Your task to perform on an android device: check data usage Image 0: 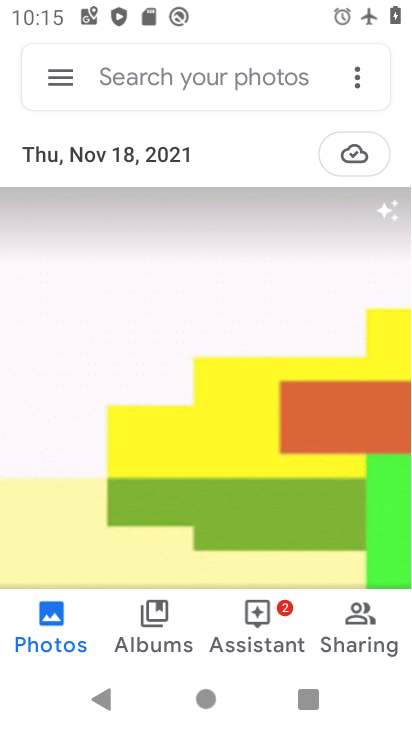
Step 0: press home button
Your task to perform on an android device: check data usage Image 1: 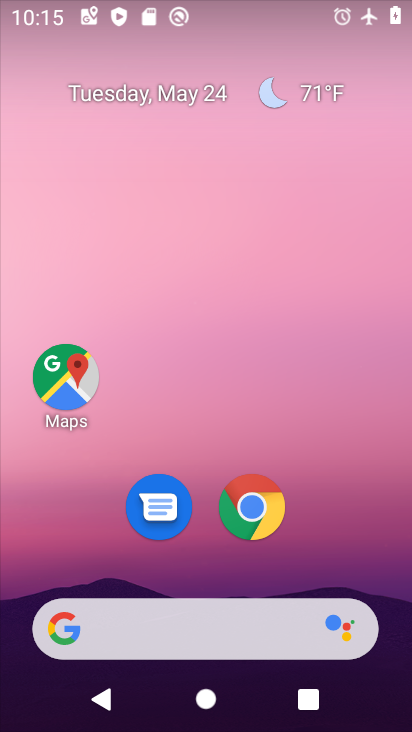
Step 1: drag from (228, 727) to (205, 171)
Your task to perform on an android device: check data usage Image 2: 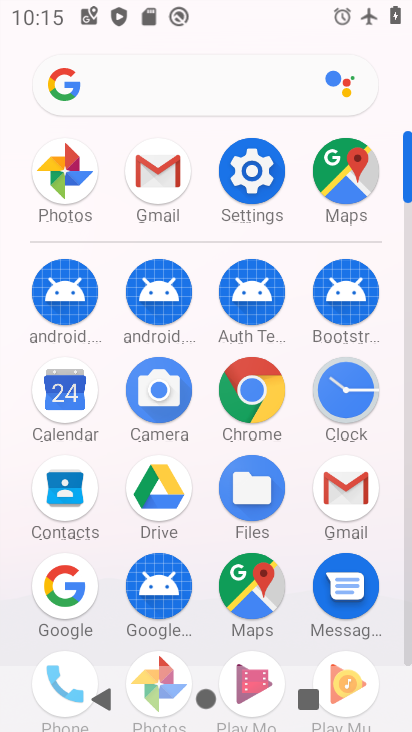
Step 2: click (249, 164)
Your task to perform on an android device: check data usage Image 3: 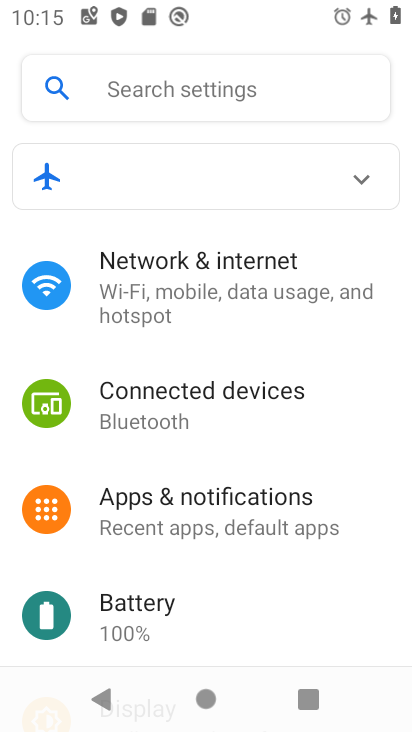
Step 3: drag from (201, 635) to (219, 545)
Your task to perform on an android device: check data usage Image 4: 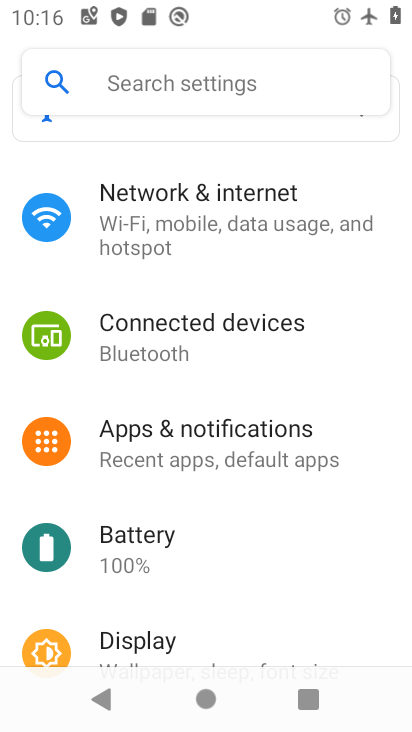
Step 4: click (142, 225)
Your task to perform on an android device: check data usage Image 5: 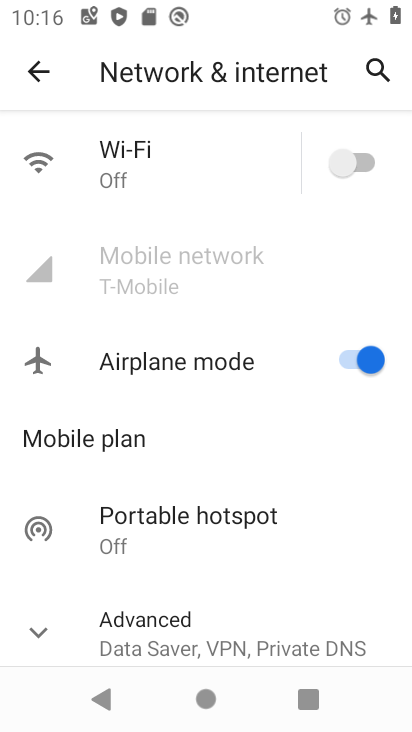
Step 5: click (345, 361)
Your task to perform on an android device: check data usage Image 6: 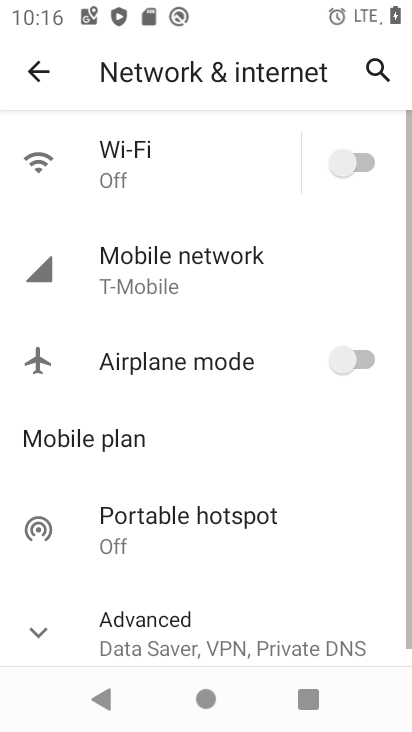
Step 6: click (181, 248)
Your task to perform on an android device: check data usage Image 7: 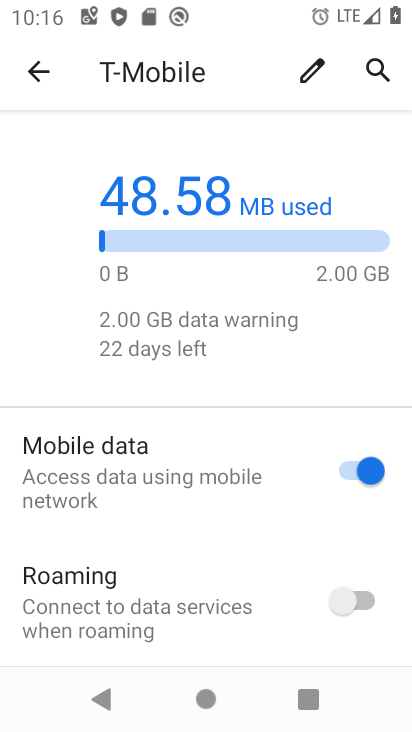
Step 7: drag from (199, 584) to (211, 291)
Your task to perform on an android device: check data usage Image 8: 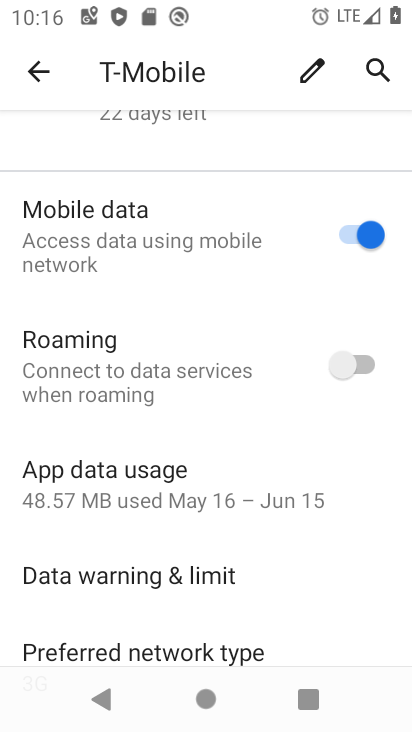
Step 8: click (138, 485)
Your task to perform on an android device: check data usage Image 9: 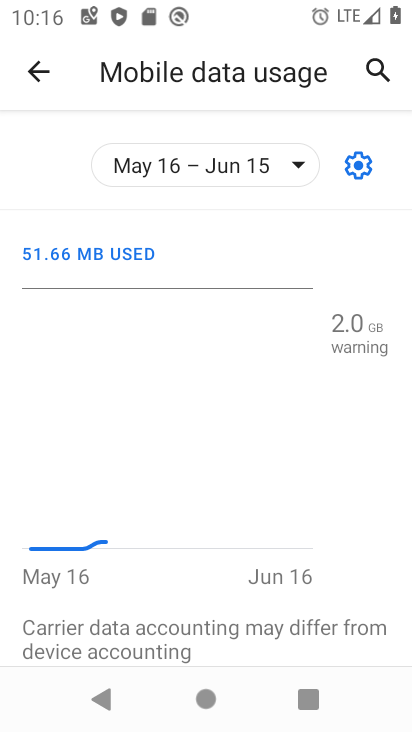
Step 9: task complete